Your task to perform on an android device: allow notifications from all sites in the chrome app Image 0: 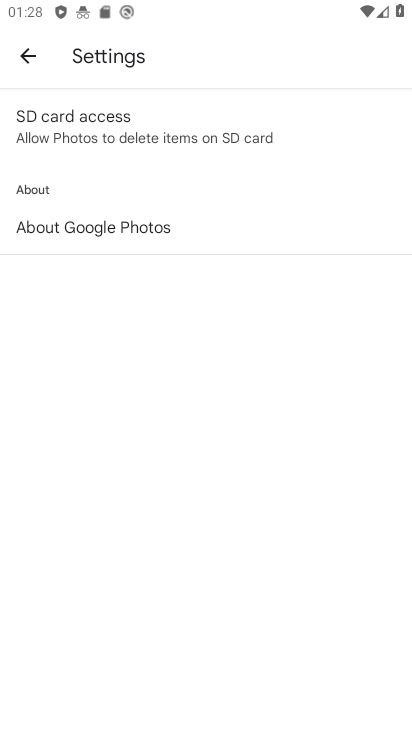
Step 0: press home button
Your task to perform on an android device: allow notifications from all sites in the chrome app Image 1: 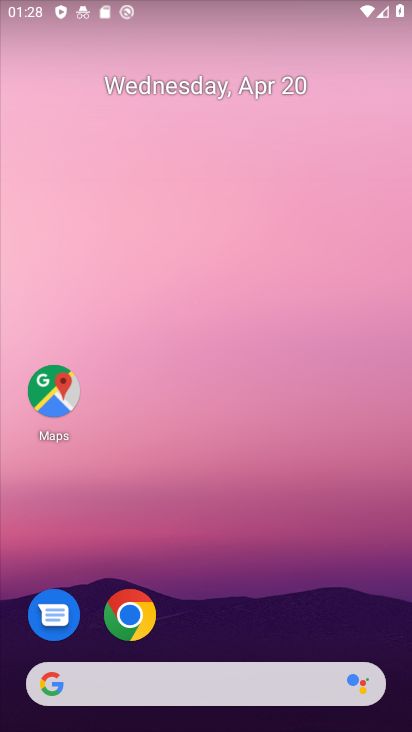
Step 1: click (126, 607)
Your task to perform on an android device: allow notifications from all sites in the chrome app Image 2: 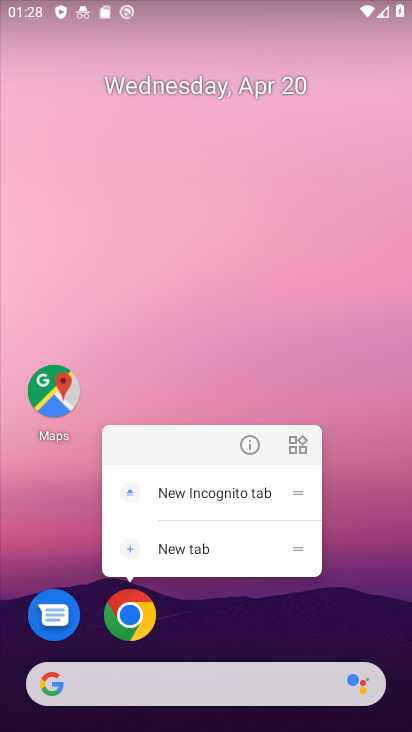
Step 2: click (126, 607)
Your task to perform on an android device: allow notifications from all sites in the chrome app Image 3: 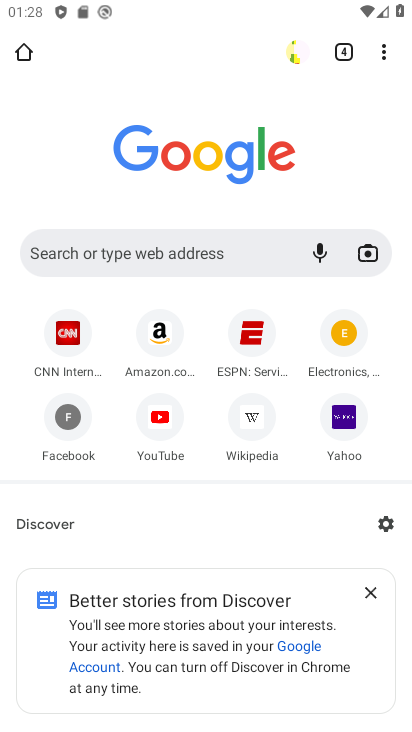
Step 3: click (126, 607)
Your task to perform on an android device: allow notifications from all sites in the chrome app Image 4: 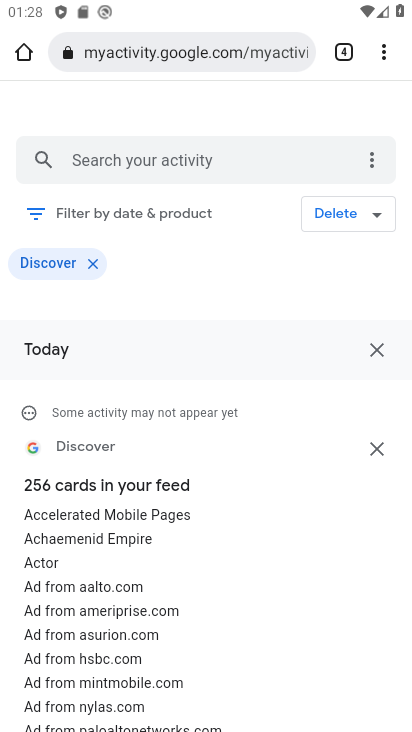
Step 4: press home button
Your task to perform on an android device: allow notifications from all sites in the chrome app Image 5: 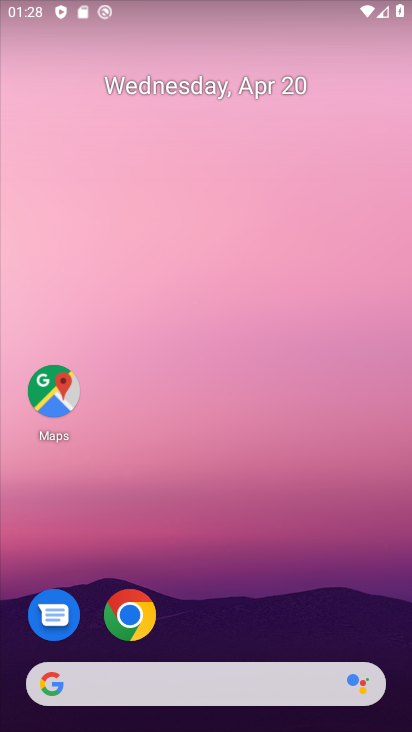
Step 5: click (120, 615)
Your task to perform on an android device: allow notifications from all sites in the chrome app Image 6: 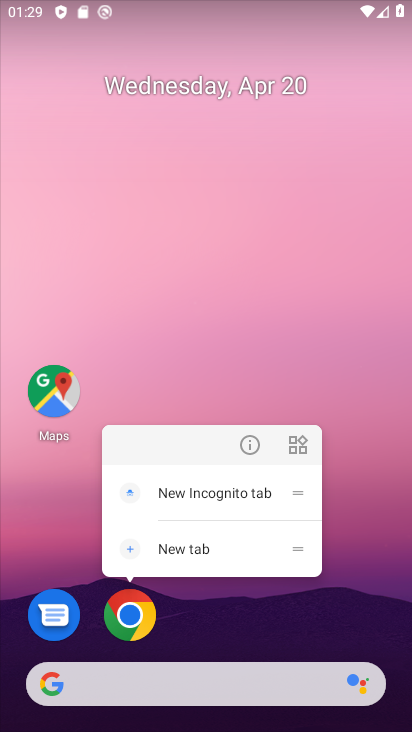
Step 6: click (120, 615)
Your task to perform on an android device: allow notifications from all sites in the chrome app Image 7: 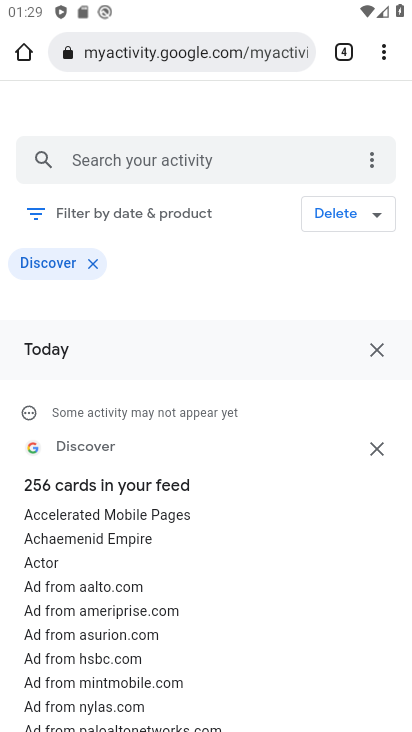
Step 7: click (383, 52)
Your task to perform on an android device: allow notifications from all sites in the chrome app Image 8: 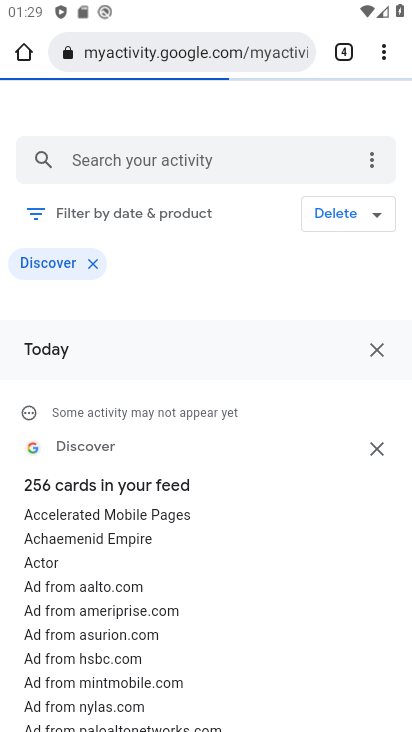
Step 8: click (383, 52)
Your task to perform on an android device: allow notifications from all sites in the chrome app Image 9: 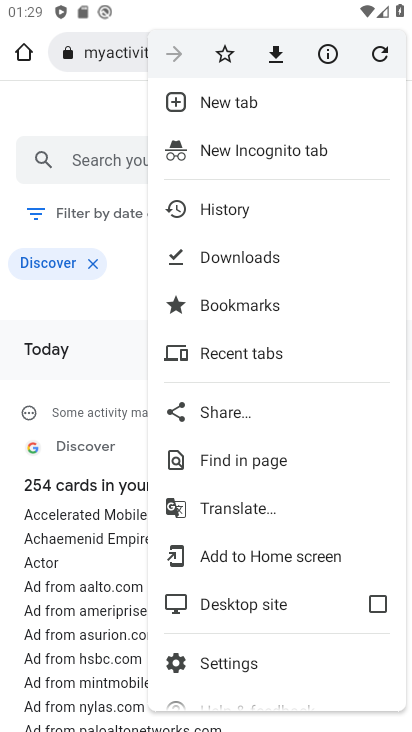
Step 9: click (234, 658)
Your task to perform on an android device: allow notifications from all sites in the chrome app Image 10: 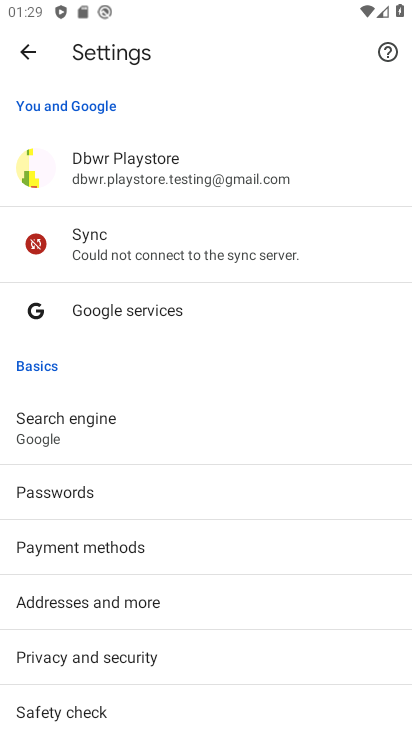
Step 10: drag from (238, 456) to (239, 339)
Your task to perform on an android device: allow notifications from all sites in the chrome app Image 11: 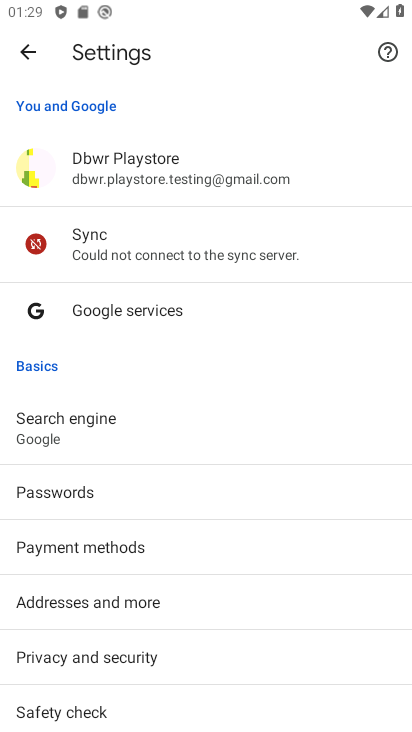
Step 11: drag from (303, 676) to (317, 217)
Your task to perform on an android device: allow notifications from all sites in the chrome app Image 12: 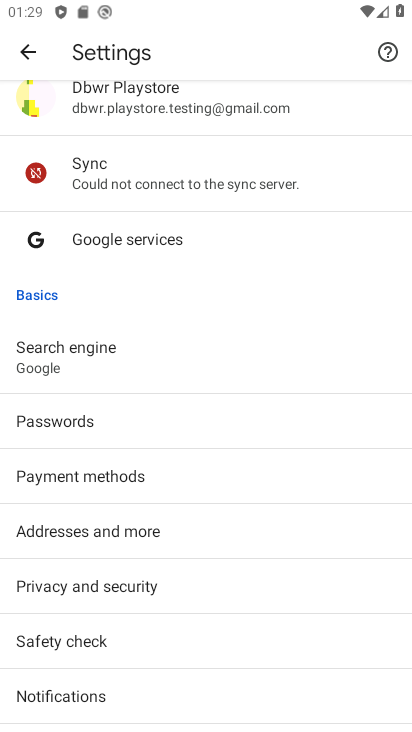
Step 12: drag from (317, 677) to (319, 230)
Your task to perform on an android device: allow notifications from all sites in the chrome app Image 13: 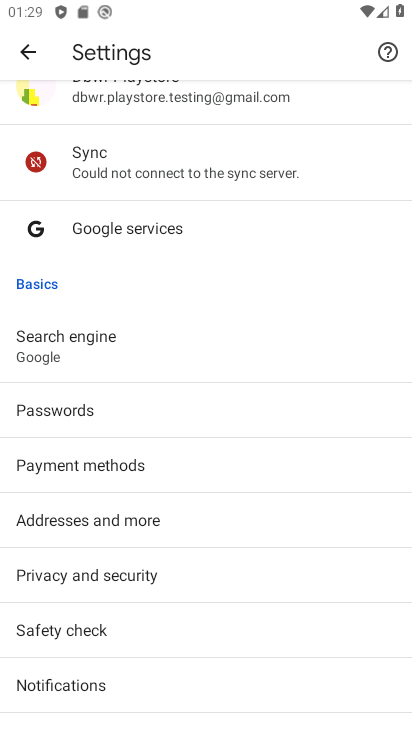
Step 13: drag from (358, 583) to (349, 161)
Your task to perform on an android device: allow notifications from all sites in the chrome app Image 14: 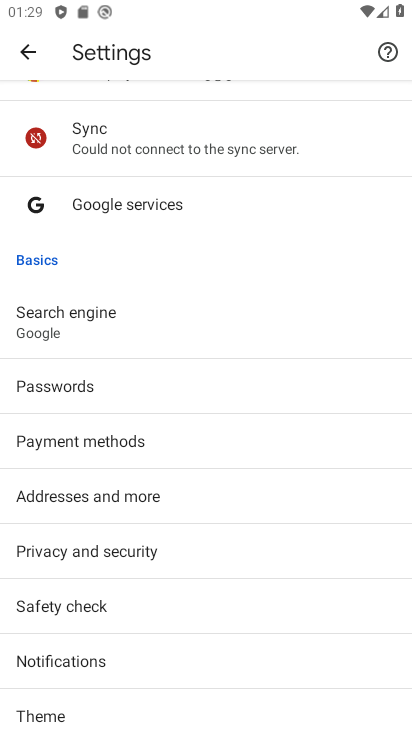
Step 14: drag from (279, 664) to (280, 294)
Your task to perform on an android device: allow notifications from all sites in the chrome app Image 15: 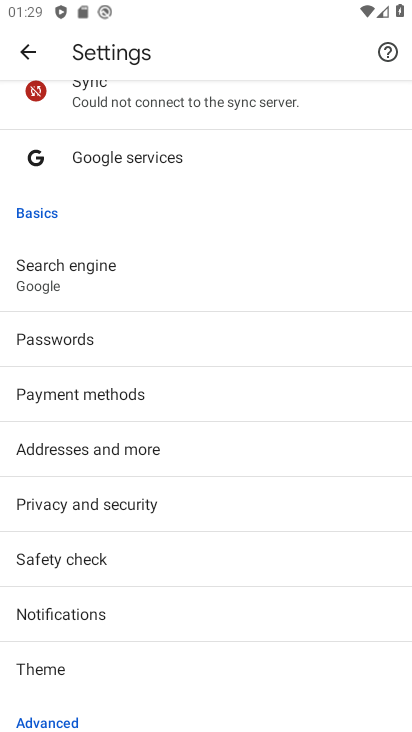
Step 15: drag from (343, 659) to (319, 326)
Your task to perform on an android device: allow notifications from all sites in the chrome app Image 16: 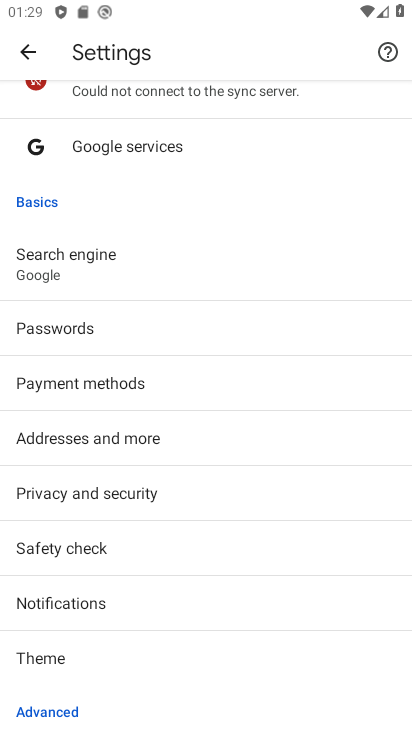
Step 16: drag from (325, 639) to (354, 319)
Your task to perform on an android device: allow notifications from all sites in the chrome app Image 17: 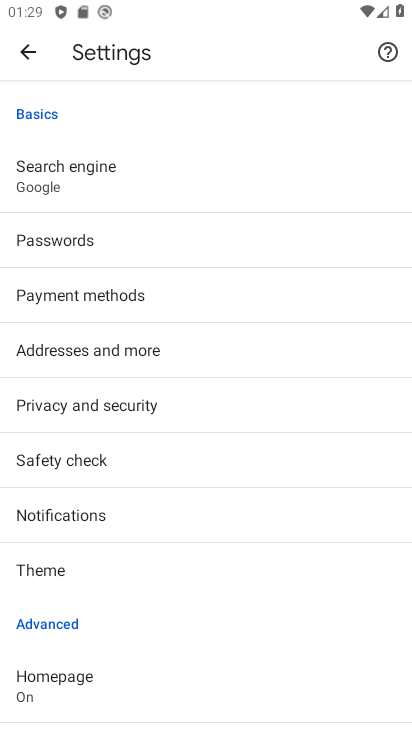
Step 17: drag from (311, 636) to (329, 344)
Your task to perform on an android device: allow notifications from all sites in the chrome app Image 18: 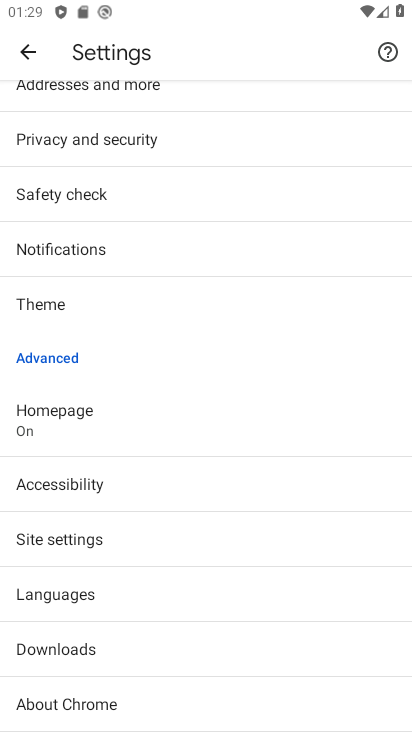
Step 18: click (51, 540)
Your task to perform on an android device: allow notifications from all sites in the chrome app Image 19: 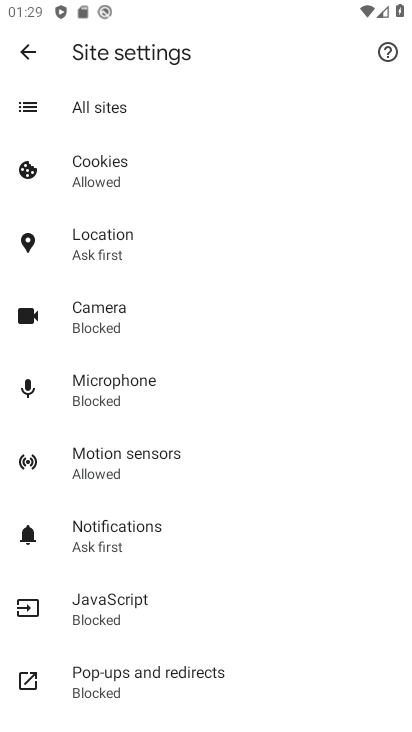
Step 19: click (90, 538)
Your task to perform on an android device: allow notifications from all sites in the chrome app Image 20: 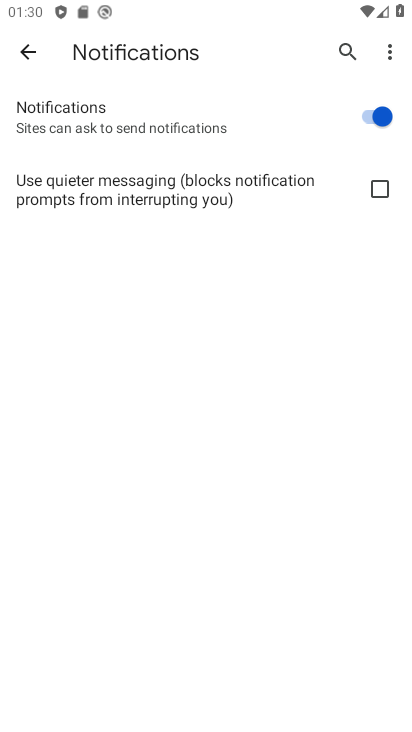
Step 20: task complete